Your task to perform on an android device: Open Reddit.com Image 0: 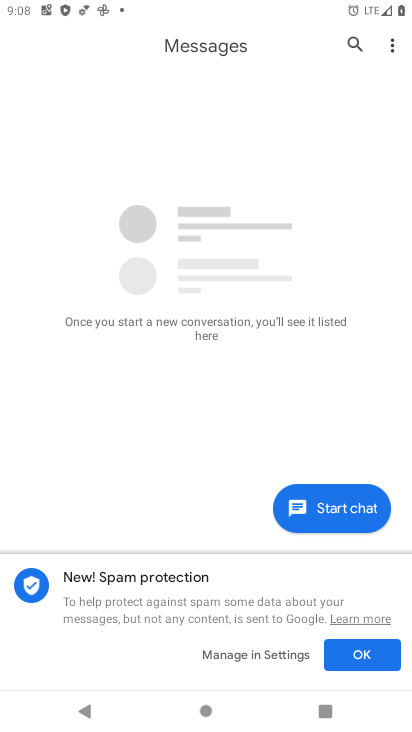
Step 0: press home button
Your task to perform on an android device: Open Reddit.com Image 1: 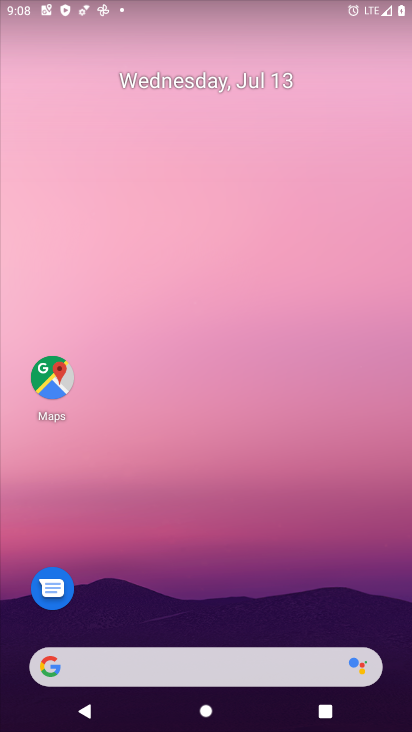
Step 1: drag from (260, 713) to (359, 12)
Your task to perform on an android device: Open Reddit.com Image 2: 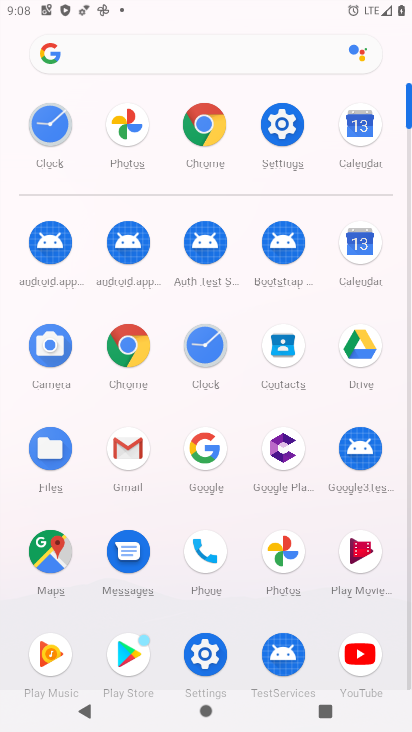
Step 2: click (192, 53)
Your task to perform on an android device: Open Reddit.com Image 3: 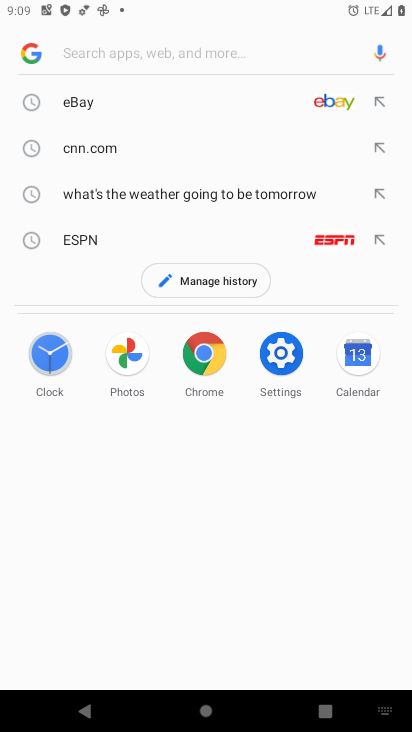
Step 3: type "reddit.com"
Your task to perform on an android device: Open Reddit.com Image 4: 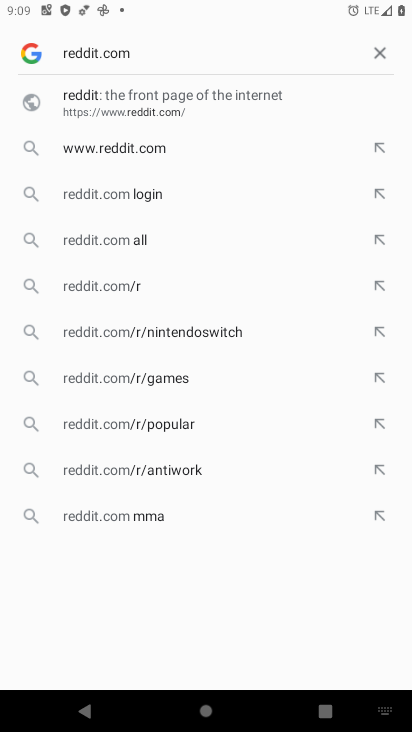
Step 4: click (245, 103)
Your task to perform on an android device: Open Reddit.com Image 5: 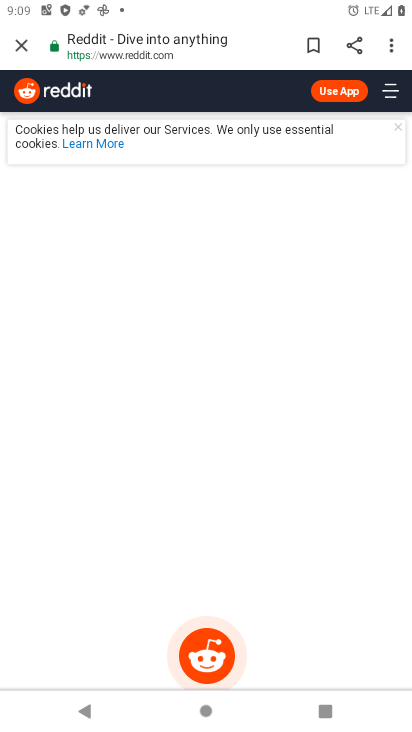
Step 5: task complete